Your task to perform on an android device: turn off sleep mode Image 0: 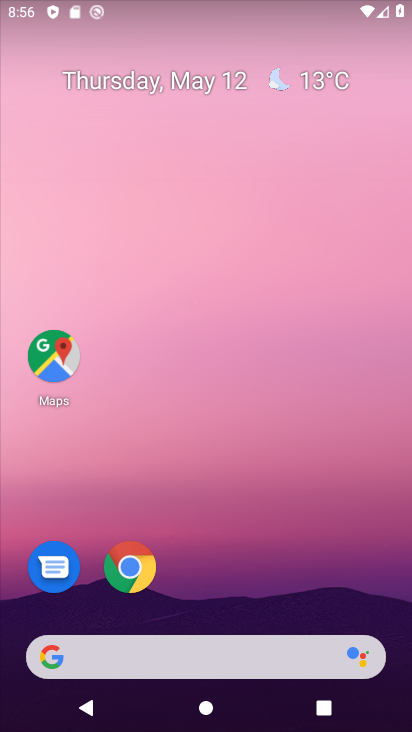
Step 0: drag from (238, 580) to (292, 240)
Your task to perform on an android device: turn off sleep mode Image 1: 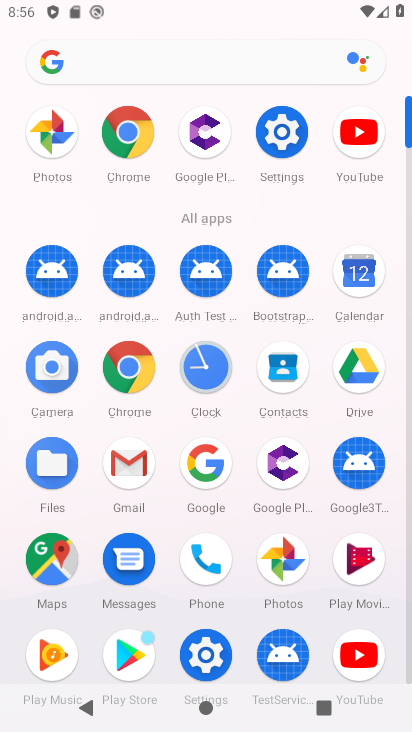
Step 1: click (209, 656)
Your task to perform on an android device: turn off sleep mode Image 2: 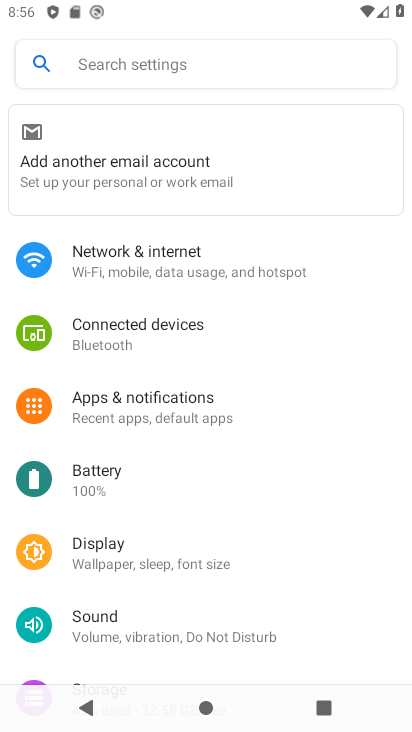
Step 2: drag from (152, 604) to (187, 156)
Your task to perform on an android device: turn off sleep mode Image 3: 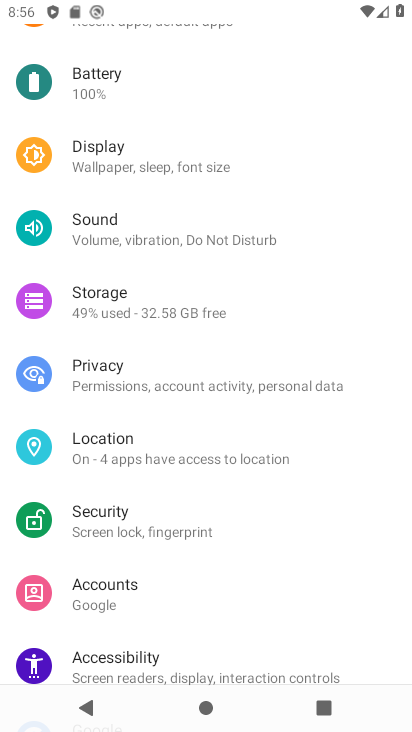
Step 3: click (120, 139)
Your task to perform on an android device: turn off sleep mode Image 4: 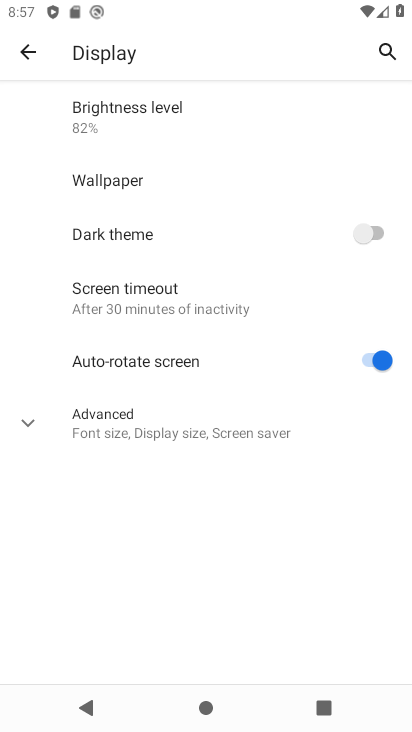
Step 4: task complete